Your task to perform on an android device: Open eBay Image 0: 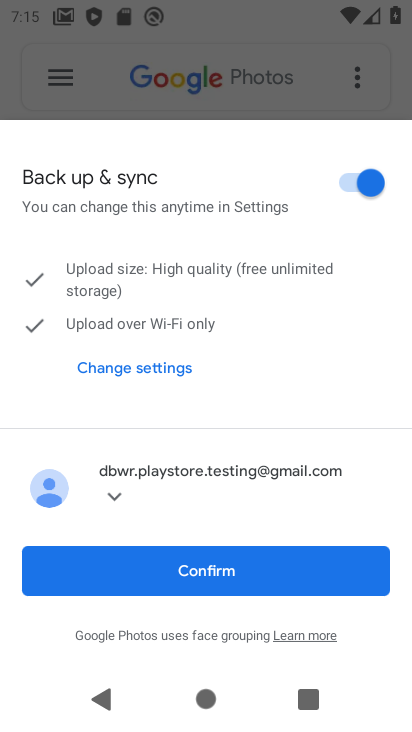
Step 0: press home button
Your task to perform on an android device: Open eBay Image 1: 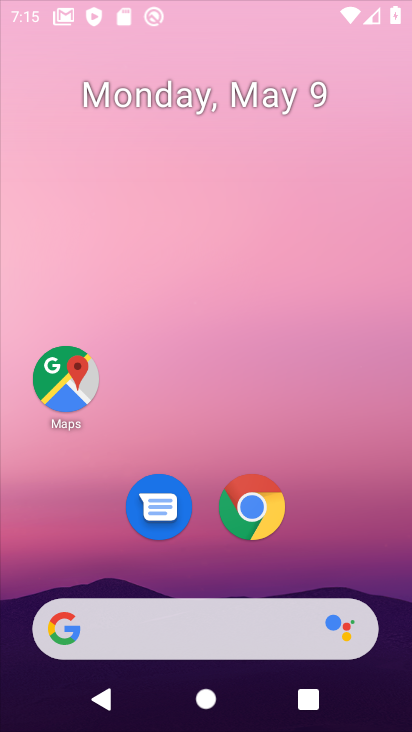
Step 1: press home button
Your task to perform on an android device: Open eBay Image 2: 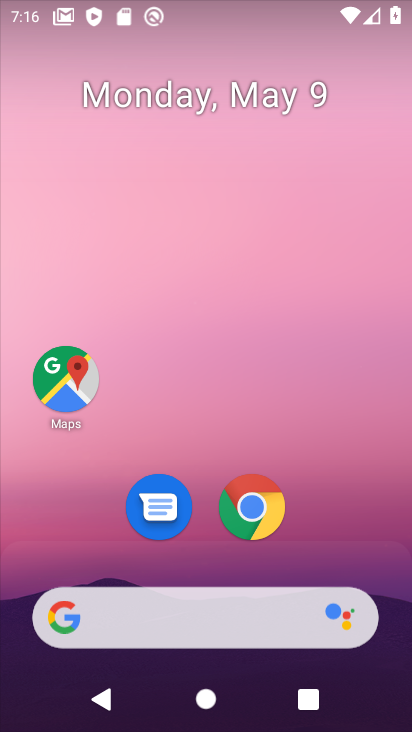
Step 2: drag from (256, 664) to (272, 169)
Your task to perform on an android device: Open eBay Image 3: 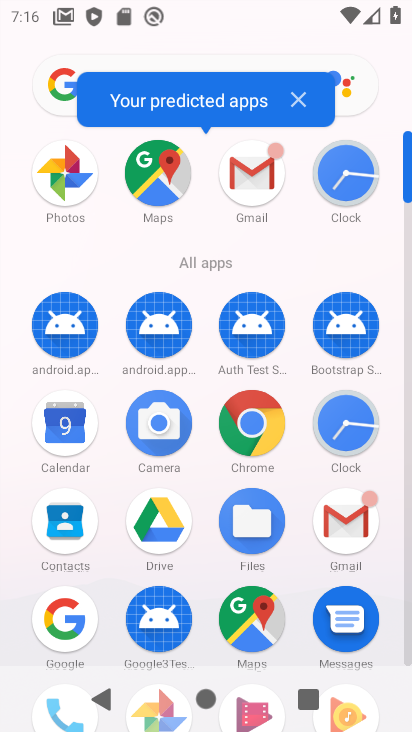
Step 3: click (253, 422)
Your task to perform on an android device: Open eBay Image 4: 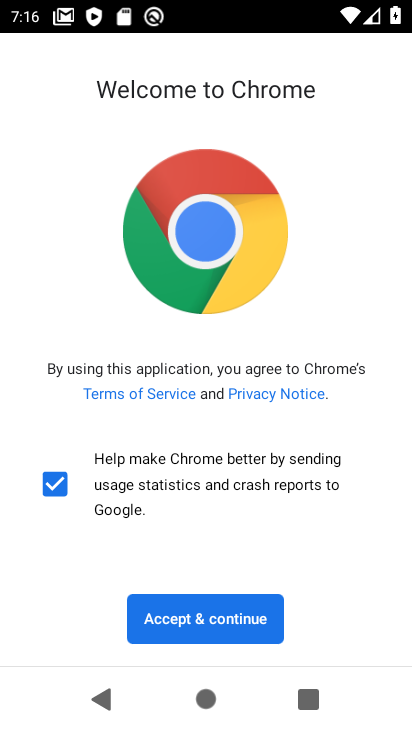
Step 4: click (206, 614)
Your task to perform on an android device: Open eBay Image 5: 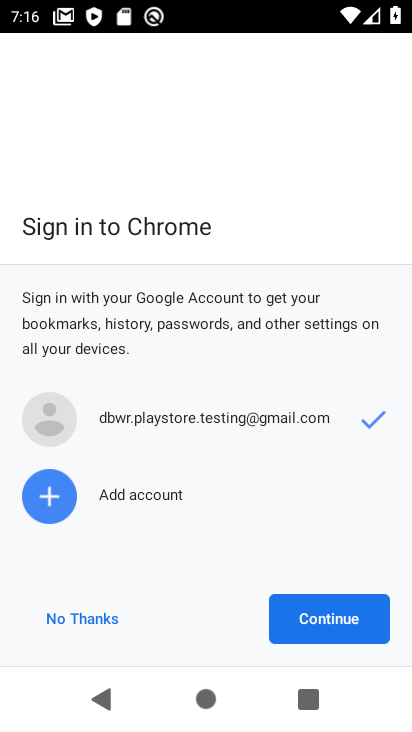
Step 5: click (323, 620)
Your task to perform on an android device: Open eBay Image 6: 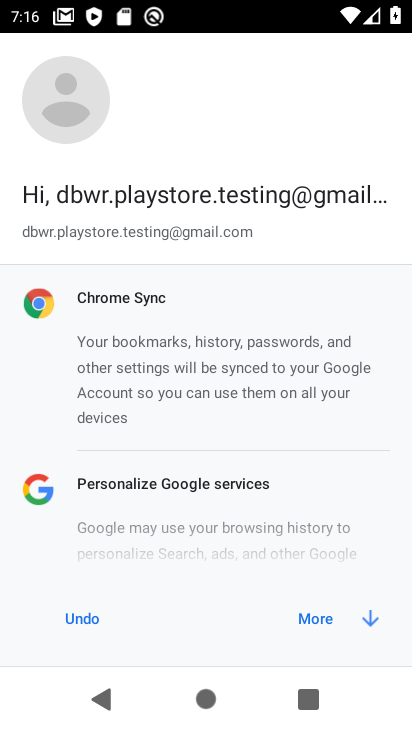
Step 6: click (375, 619)
Your task to perform on an android device: Open eBay Image 7: 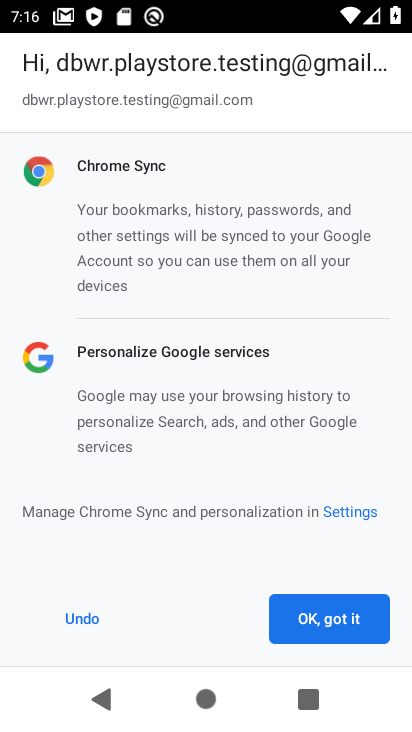
Step 7: click (342, 638)
Your task to perform on an android device: Open eBay Image 8: 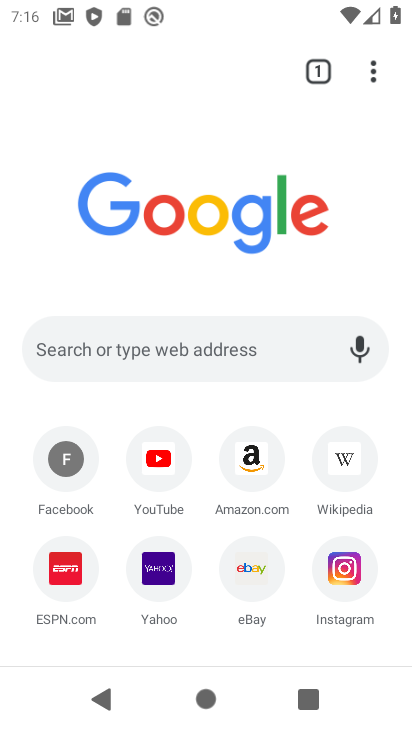
Step 8: click (264, 577)
Your task to perform on an android device: Open eBay Image 9: 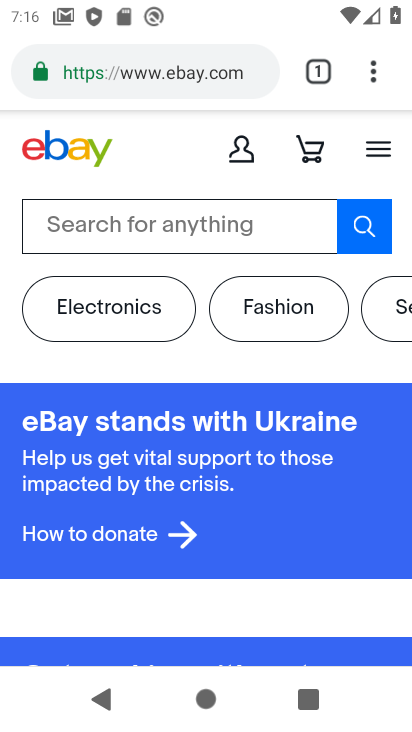
Step 9: task complete